Your task to perform on an android device: turn off picture-in-picture Image 0: 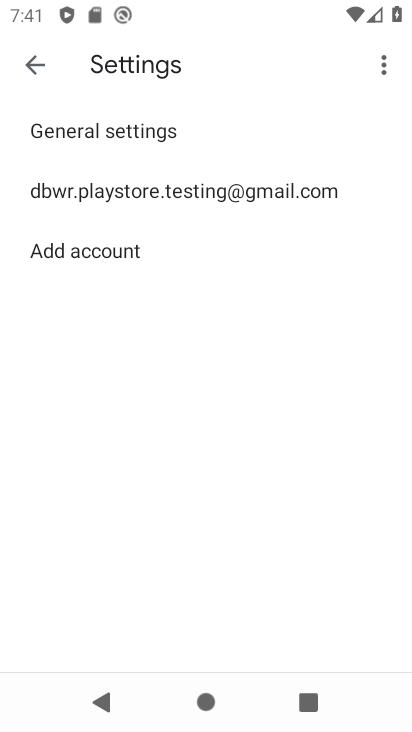
Step 0: press home button
Your task to perform on an android device: turn off picture-in-picture Image 1: 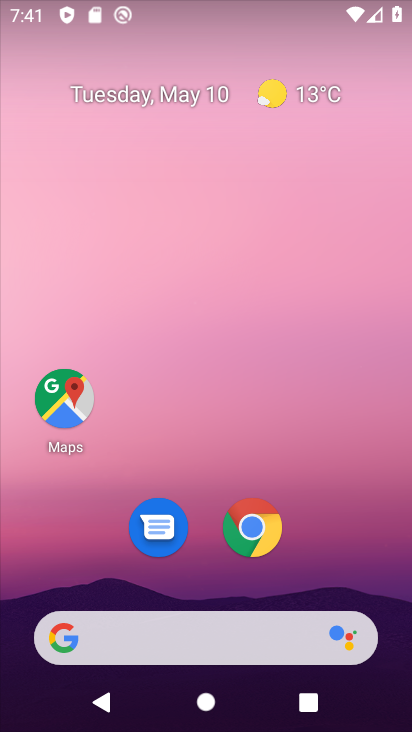
Step 1: drag from (24, 662) to (308, 226)
Your task to perform on an android device: turn off picture-in-picture Image 2: 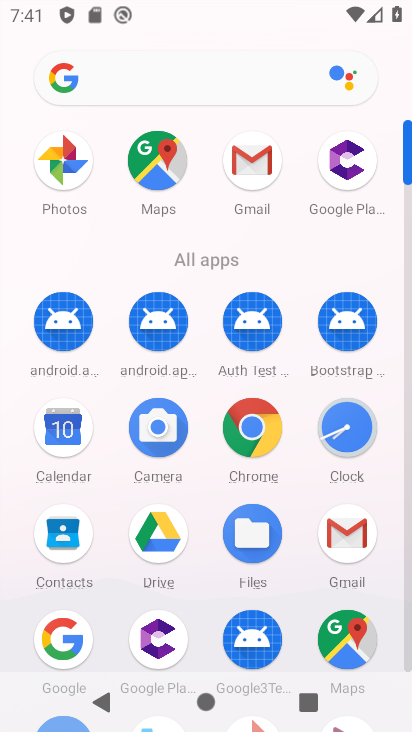
Step 2: drag from (25, 603) to (279, 159)
Your task to perform on an android device: turn off picture-in-picture Image 3: 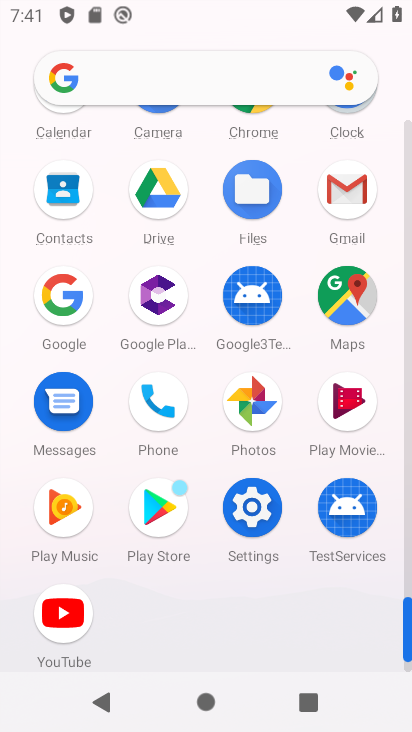
Step 3: click (257, 513)
Your task to perform on an android device: turn off picture-in-picture Image 4: 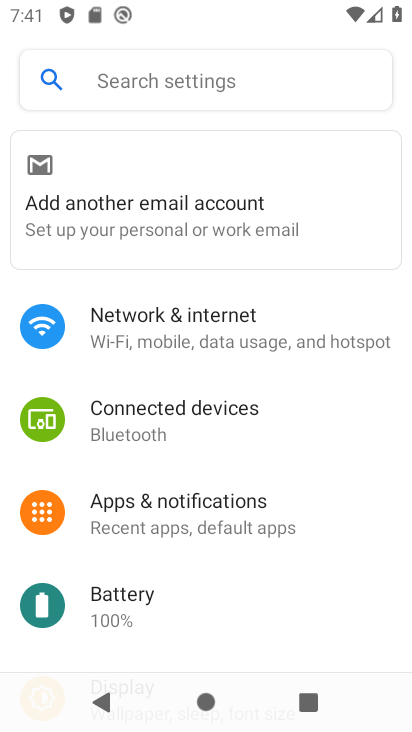
Step 4: drag from (22, 658) to (244, 307)
Your task to perform on an android device: turn off picture-in-picture Image 5: 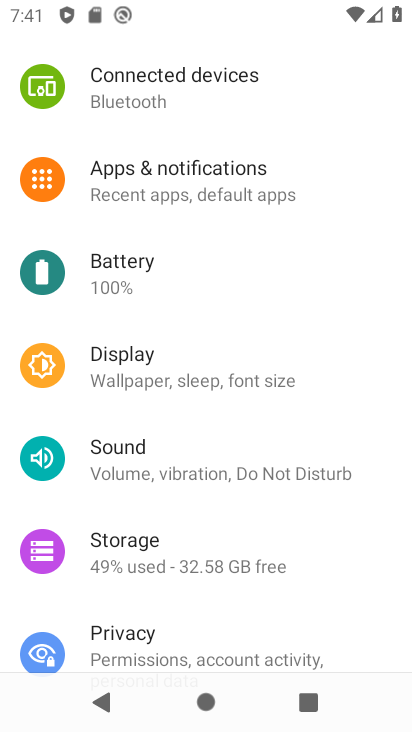
Step 5: click (227, 153)
Your task to perform on an android device: turn off picture-in-picture Image 6: 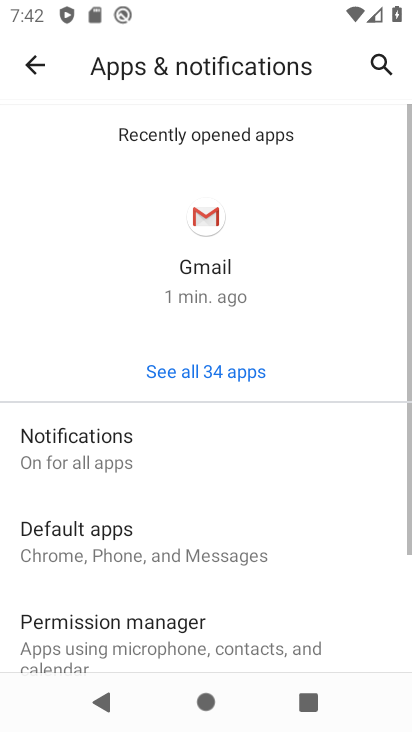
Step 6: click (133, 645)
Your task to perform on an android device: turn off picture-in-picture Image 7: 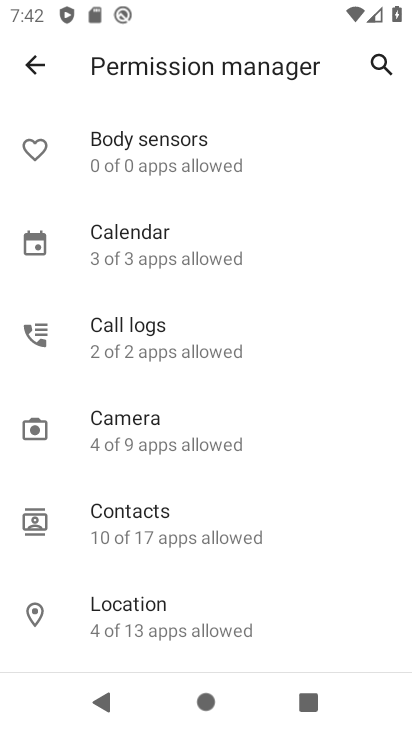
Step 7: click (44, 57)
Your task to perform on an android device: turn off picture-in-picture Image 8: 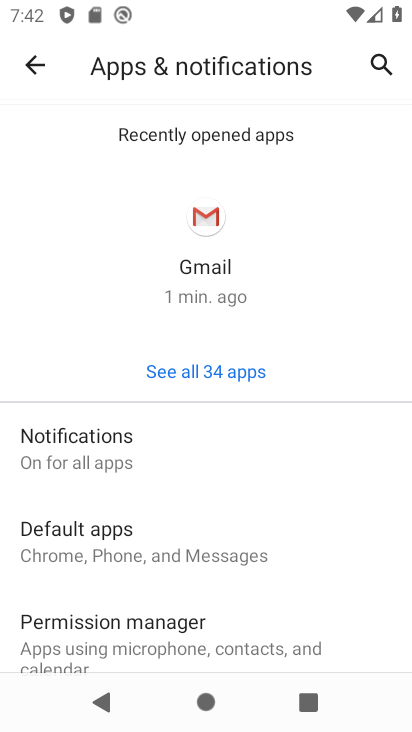
Step 8: click (79, 438)
Your task to perform on an android device: turn off picture-in-picture Image 9: 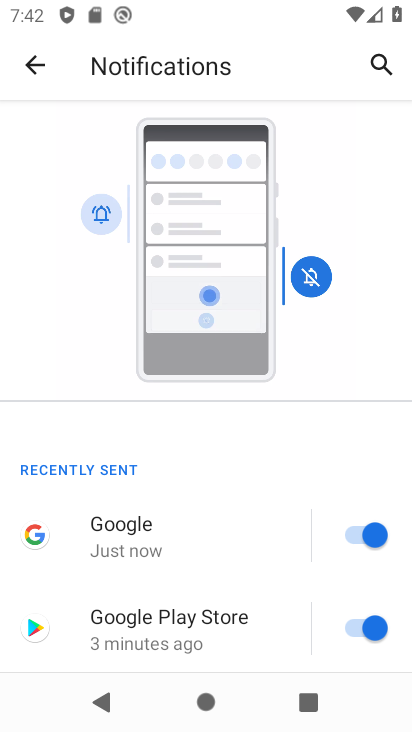
Step 9: drag from (98, 637) to (353, 157)
Your task to perform on an android device: turn off picture-in-picture Image 10: 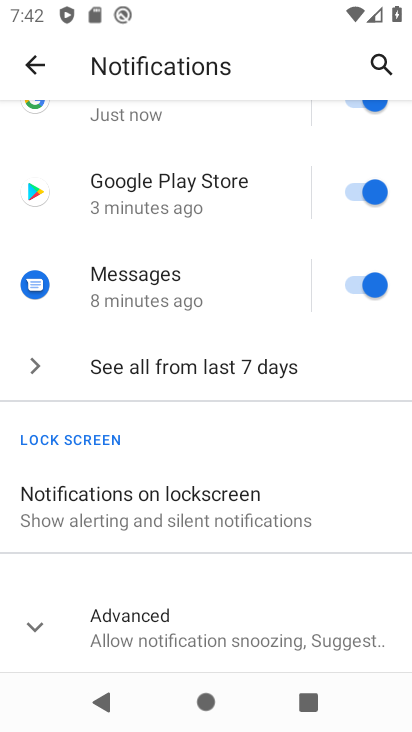
Step 10: click (163, 503)
Your task to perform on an android device: turn off picture-in-picture Image 11: 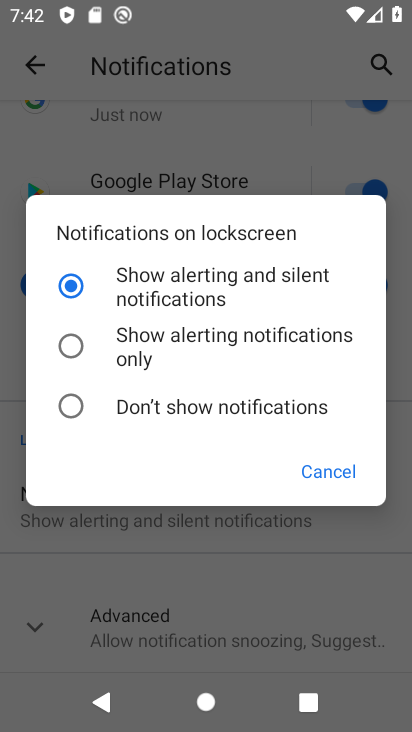
Step 11: click (338, 472)
Your task to perform on an android device: turn off picture-in-picture Image 12: 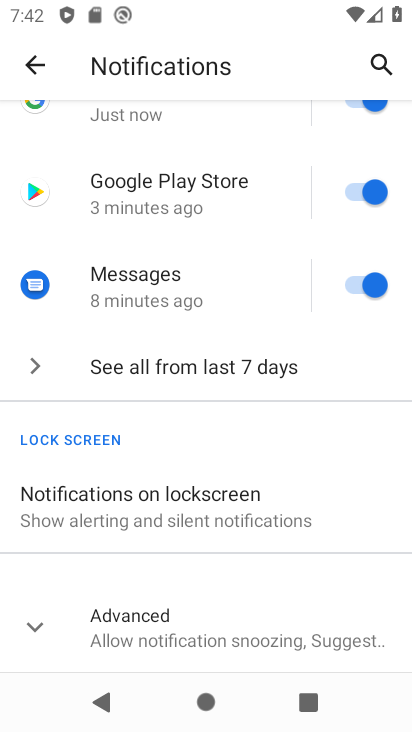
Step 12: click (185, 646)
Your task to perform on an android device: turn off picture-in-picture Image 13: 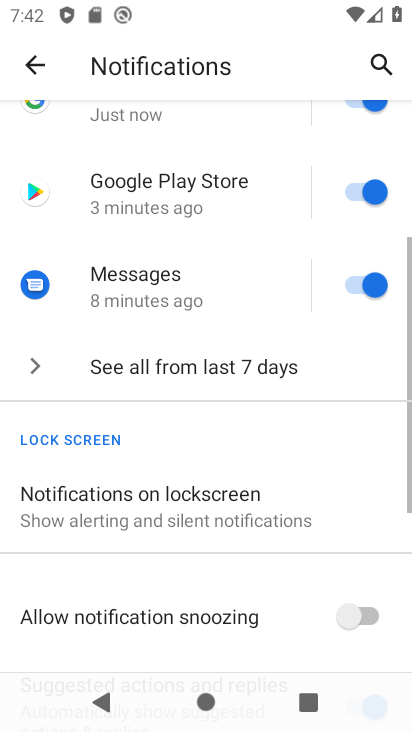
Step 13: task complete